Your task to perform on an android device: Open the map Image 0: 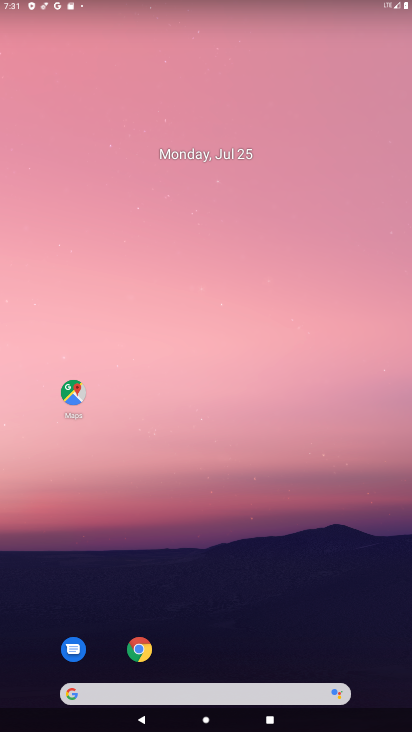
Step 0: click (62, 385)
Your task to perform on an android device: Open the map Image 1: 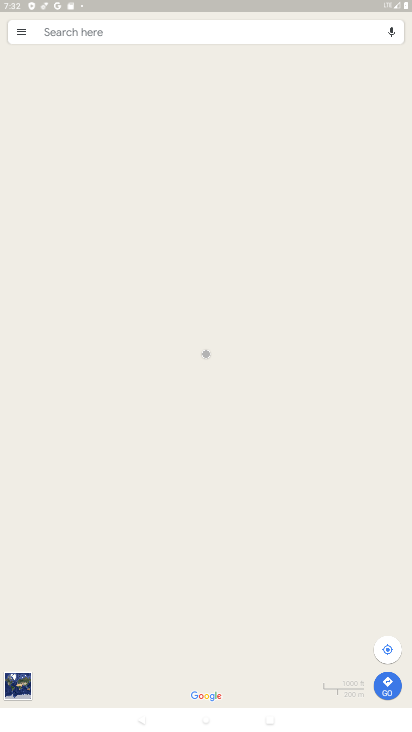
Step 1: task complete